Your task to perform on an android device: Search for Italian restaurants on Maps Image 0: 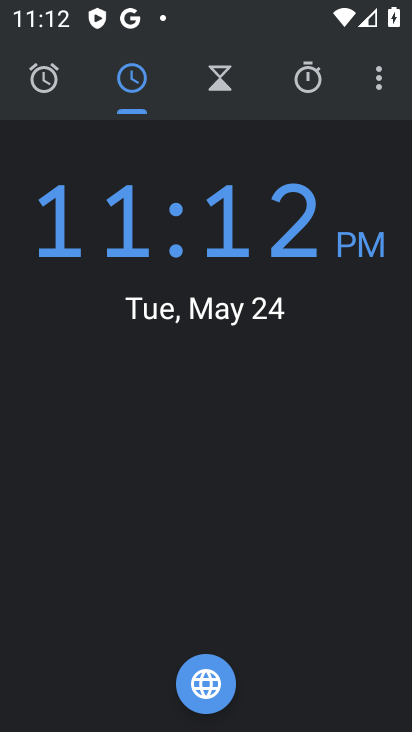
Step 0: press home button
Your task to perform on an android device: Search for Italian restaurants on Maps Image 1: 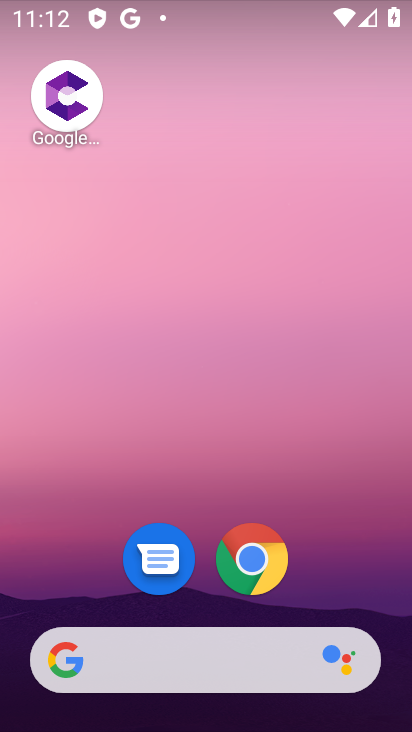
Step 1: drag from (381, 565) to (172, 14)
Your task to perform on an android device: Search for Italian restaurants on Maps Image 2: 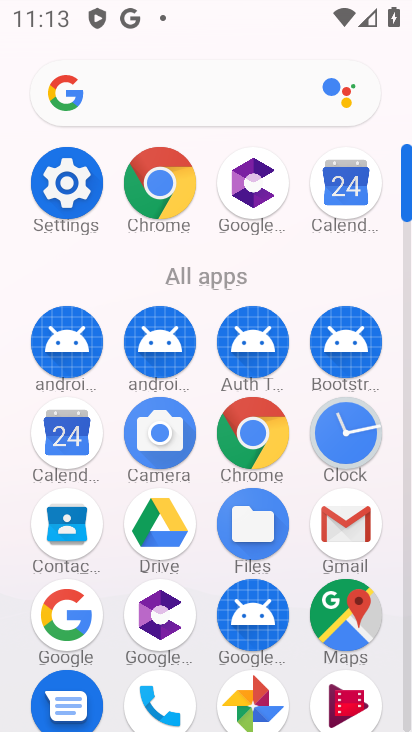
Step 2: click (358, 600)
Your task to perform on an android device: Search for Italian restaurants on Maps Image 3: 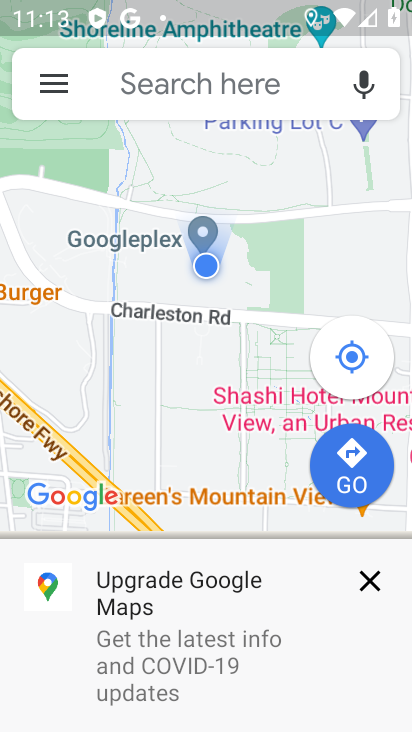
Step 3: click (288, 84)
Your task to perform on an android device: Search for Italian restaurants on Maps Image 4: 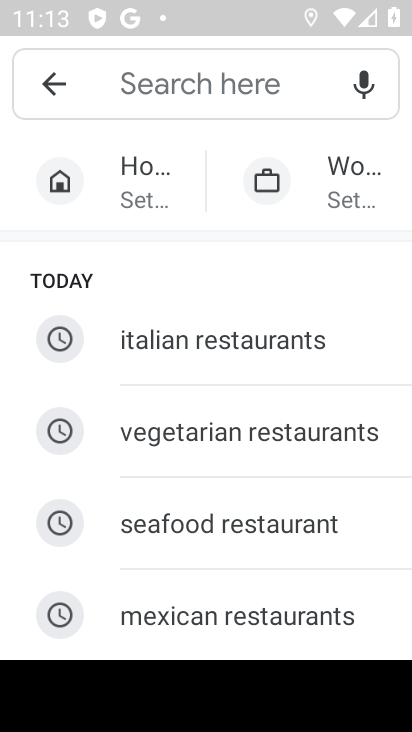
Step 4: click (233, 360)
Your task to perform on an android device: Search for Italian restaurants on Maps Image 5: 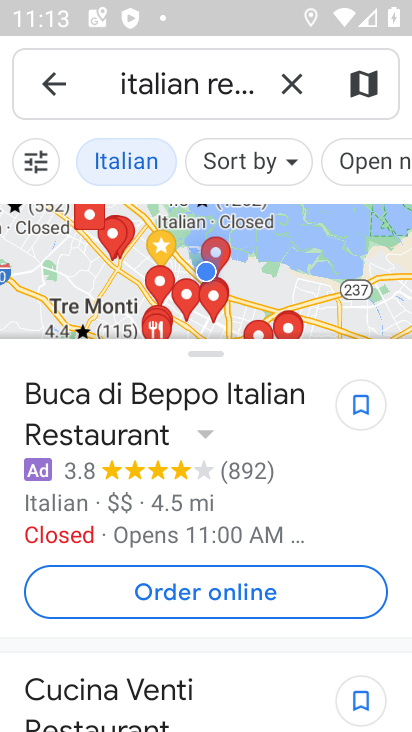
Step 5: task complete